Your task to perform on an android device: turn on notifications settings in the gmail app Image 0: 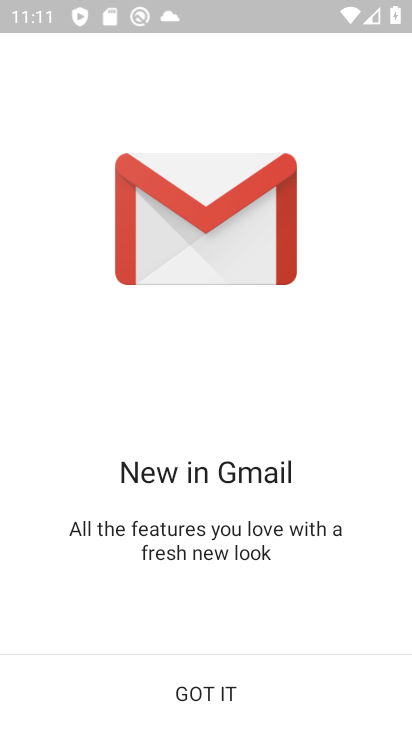
Step 0: click (220, 695)
Your task to perform on an android device: turn on notifications settings in the gmail app Image 1: 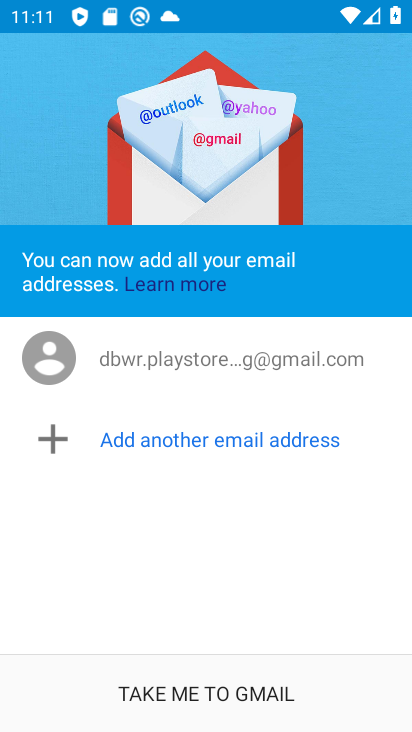
Step 1: click (207, 700)
Your task to perform on an android device: turn on notifications settings in the gmail app Image 2: 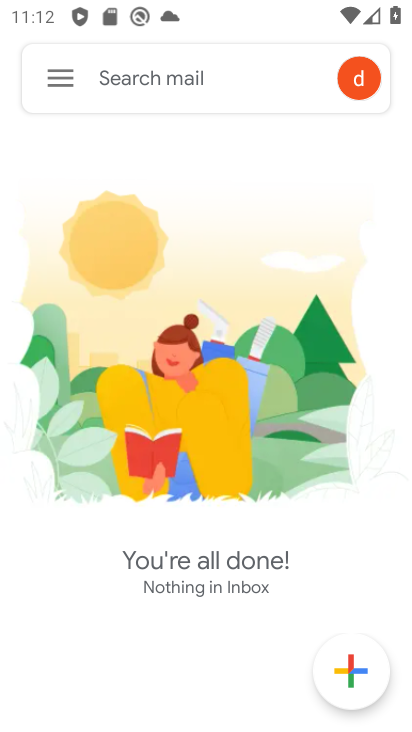
Step 2: click (52, 72)
Your task to perform on an android device: turn on notifications settings in the gmail app Image 3: 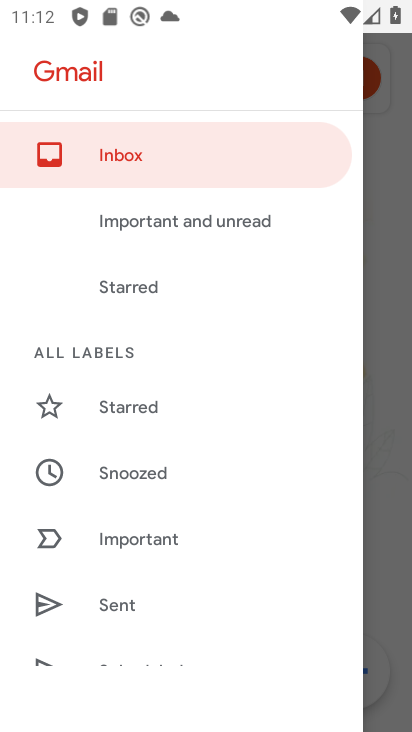
Step 3: drag from (148, 621) to (172, 73)
Your task to perform on an android device: turn on notifications settings in the gmail app Image 4: 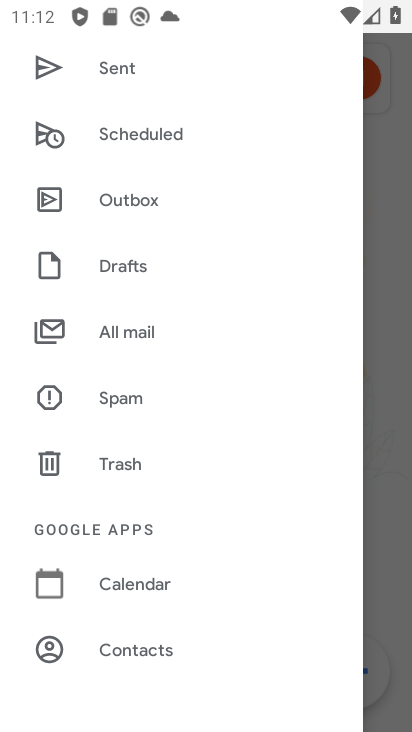
Step 4: drag from (181, 637) to (219, 84)
Your task to perform on an android device: turn on notifications settings in the gmail app Image 5: 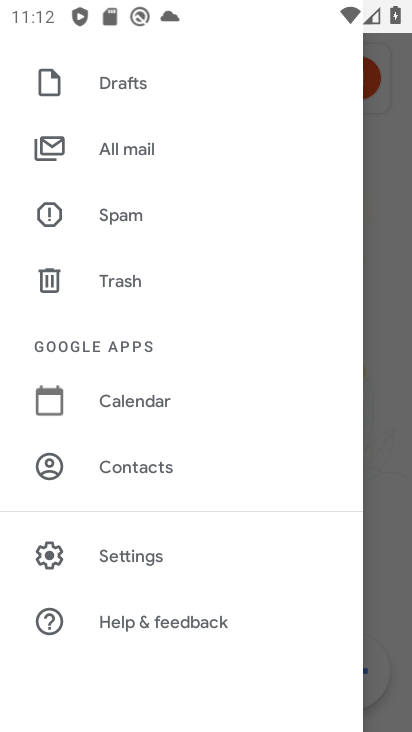
Step 5: click (171, 557)
Your task to perform on an android device: turn on notifications settings in the gmail app Image 6: 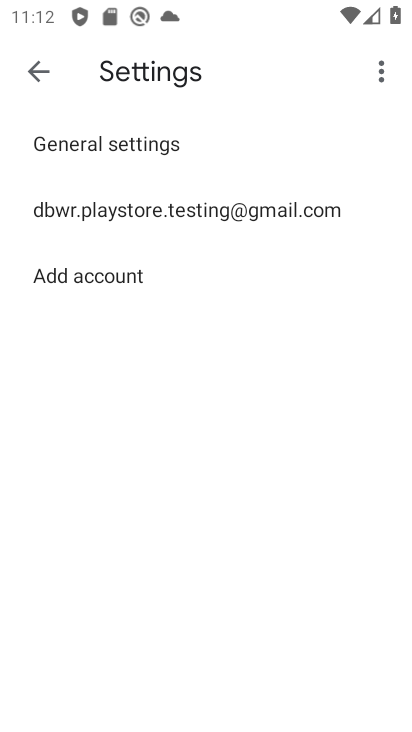
Step 6: click (195, 136)
Your task to perform on an android device: turn on notifications settings in the gmail app Image 7: 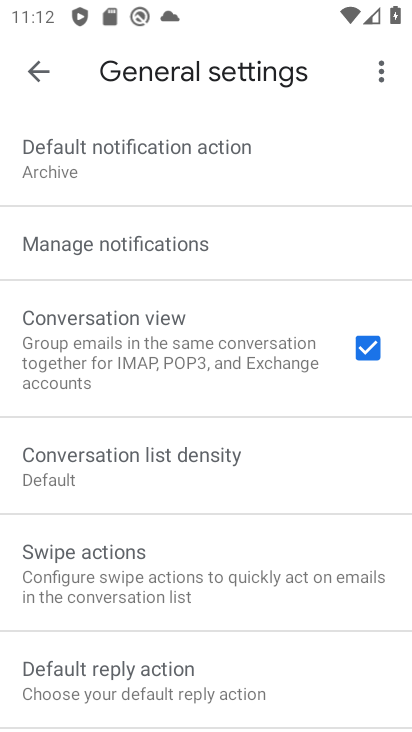
Step 7: click (232, 235)
Your task to perform on an android device: turn on notifications settings in the gmail app Image 8: 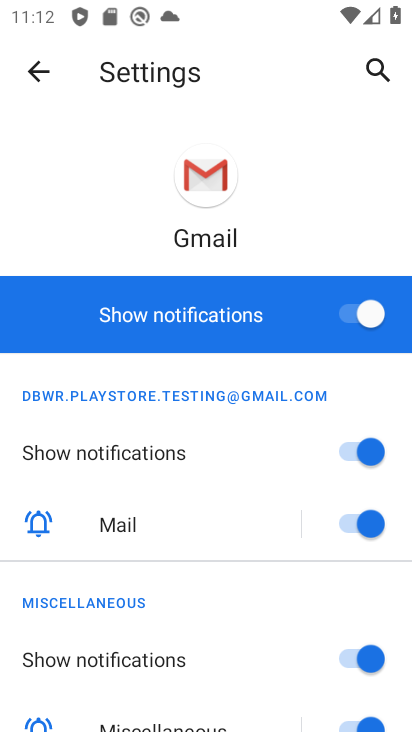
Step 8: task complete